Your task to perform on an android device: Go to display settings Image 0: 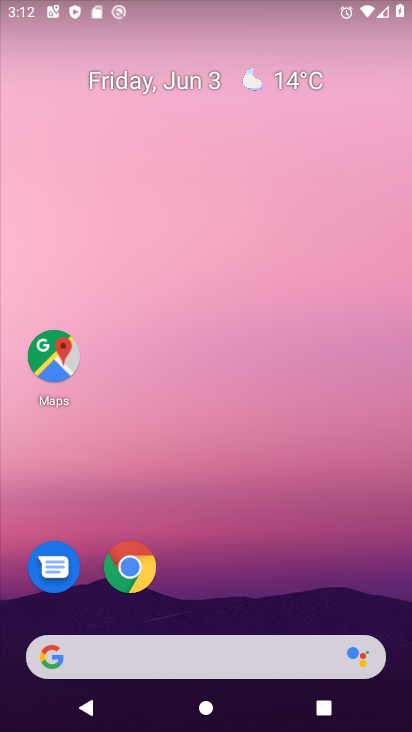
Step 0: drag from (275, 686) to (123, 130)
Your task to perform on an android device: Go to display settings Image 1: 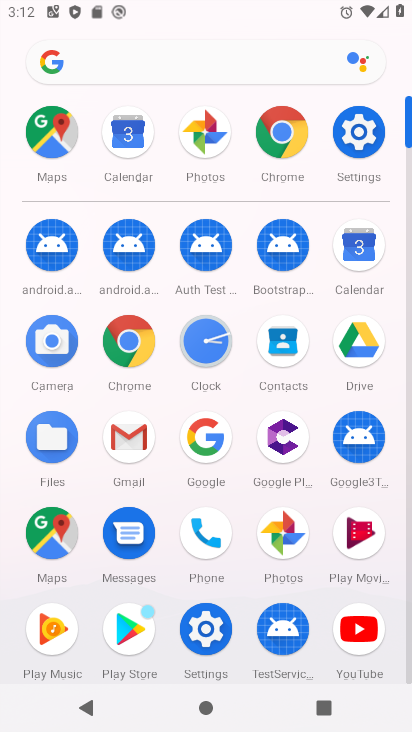
Step 1: click (357, 143)
Your task to perform on an android device: Go to display settings Image 2: 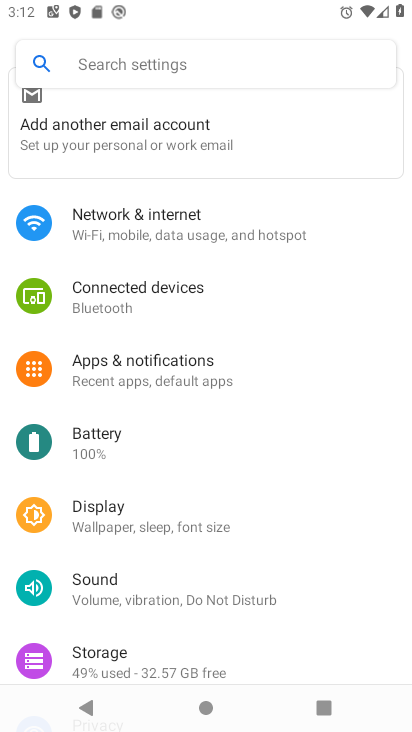
Step 2: click (121, 516)
Your task to perform on an android device: Go to display settings Image 3: 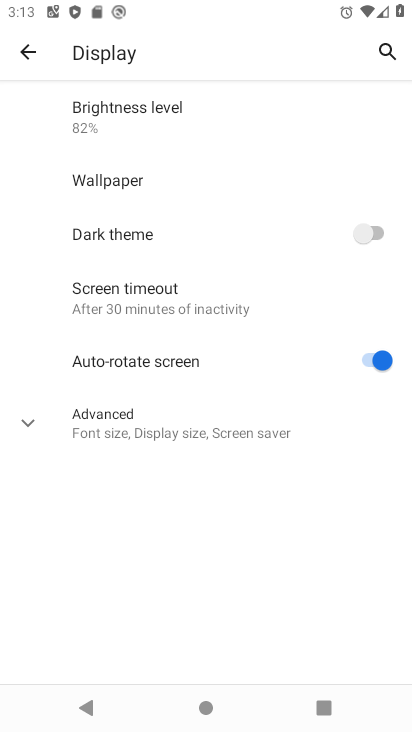
Step 3: task complete